Your task to perform on an android device: show emergency info Image 0: 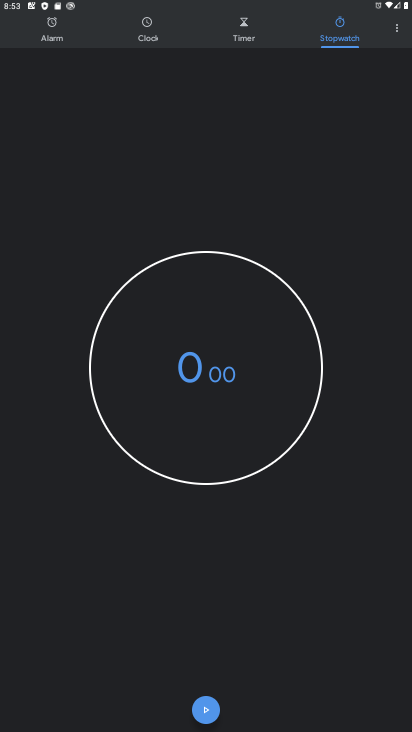
Step 0: press home button
Your task to perform on an android device: show emergency info Image 1: 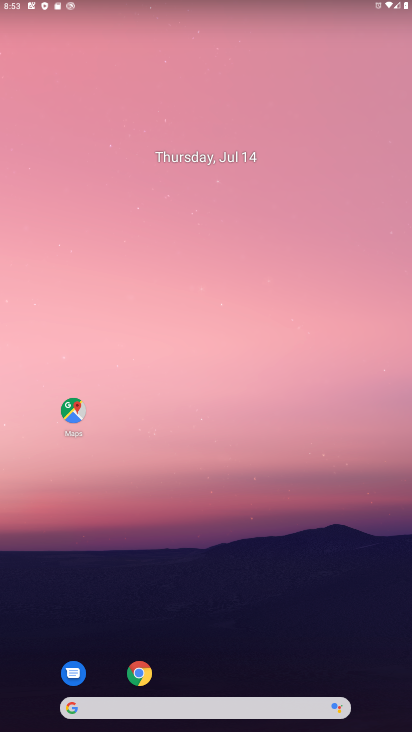
Step 1: drag from (208, 700) to (225, 270)
Your task to perform on an android device: show emergency info Image 2: 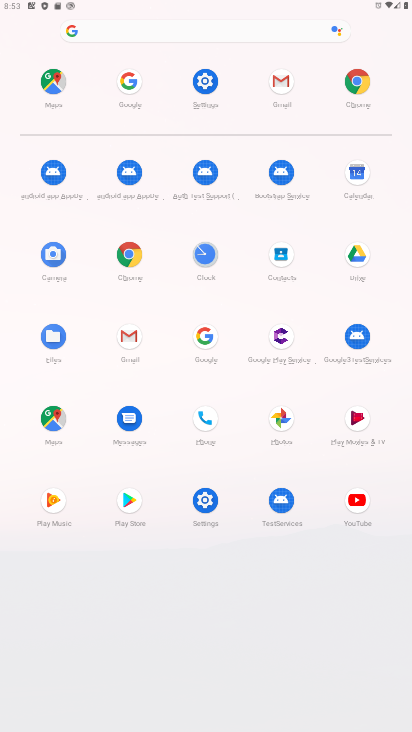
Step 2: click (206, 80)
Your task to perform on an android device: show emergency info Image 3: 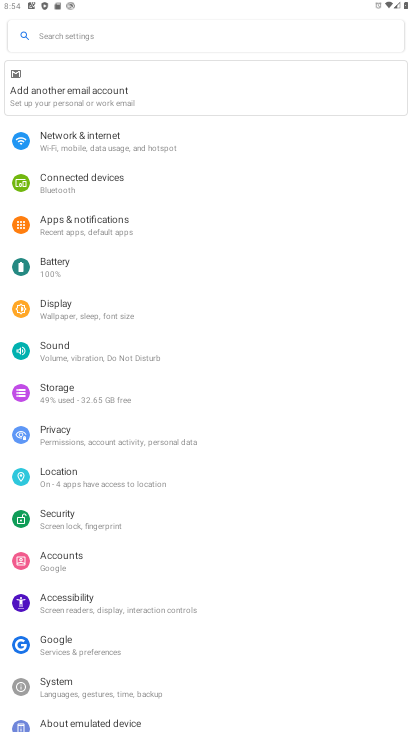
Step 3: drag from (104, 504) to (163, 398)
Your task to perform on an android device: show emergency info Image 4: 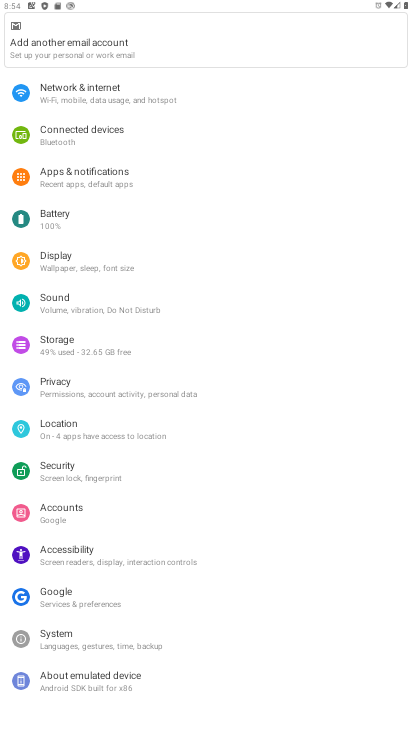
Step 4: click (117, 681)
Your task to perform on an android device: show emergency info Image 5: 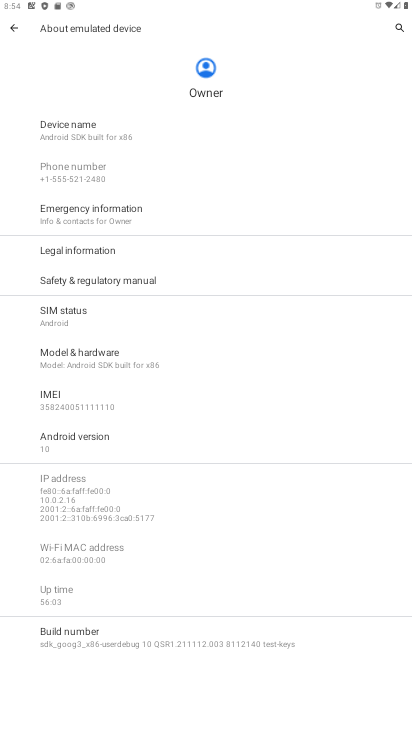
Step 5: click (133, 211)
Your task to perform on an android device: show emergency info Image 6: 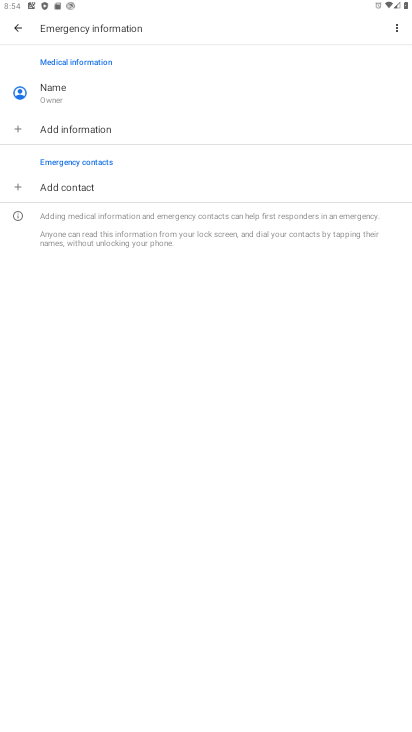
Step 6: task complete